Your task to perform on an android device: Search for hotels in Buenos aires Image 0: 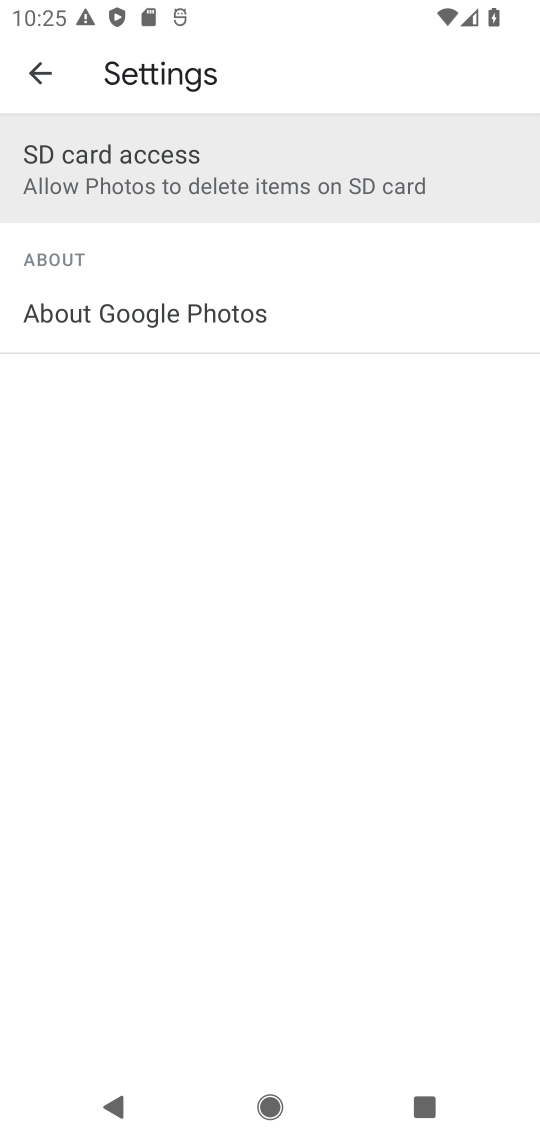
Step 0: press home button
Your task to perform on an android device: Search for hotels in Buenos aires Image 1: 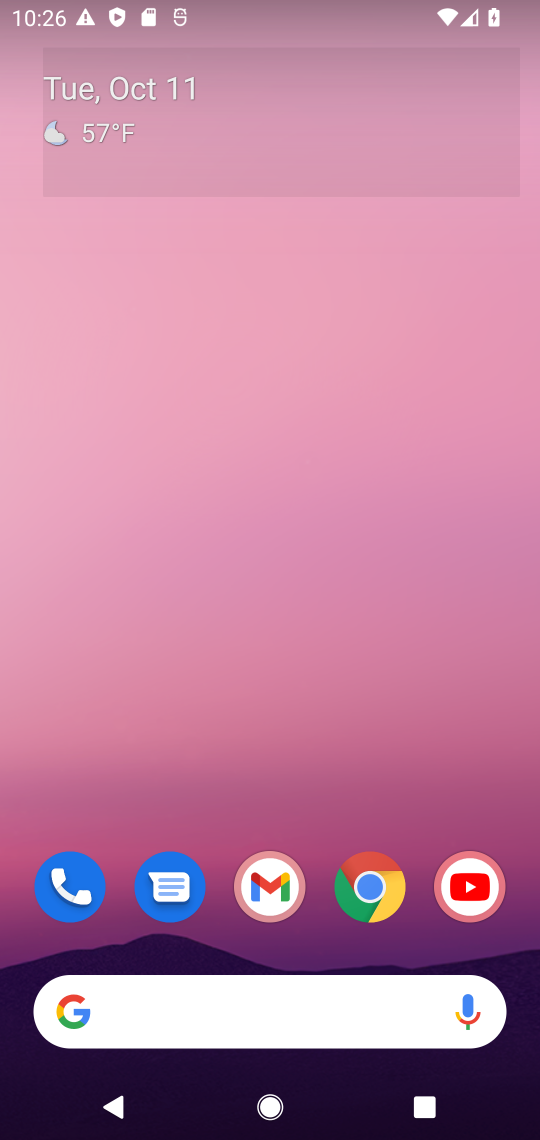
Step 1: click (168, 1010)
Your task to perform on an android device: Search for hotels in Buenos aires Image 2: 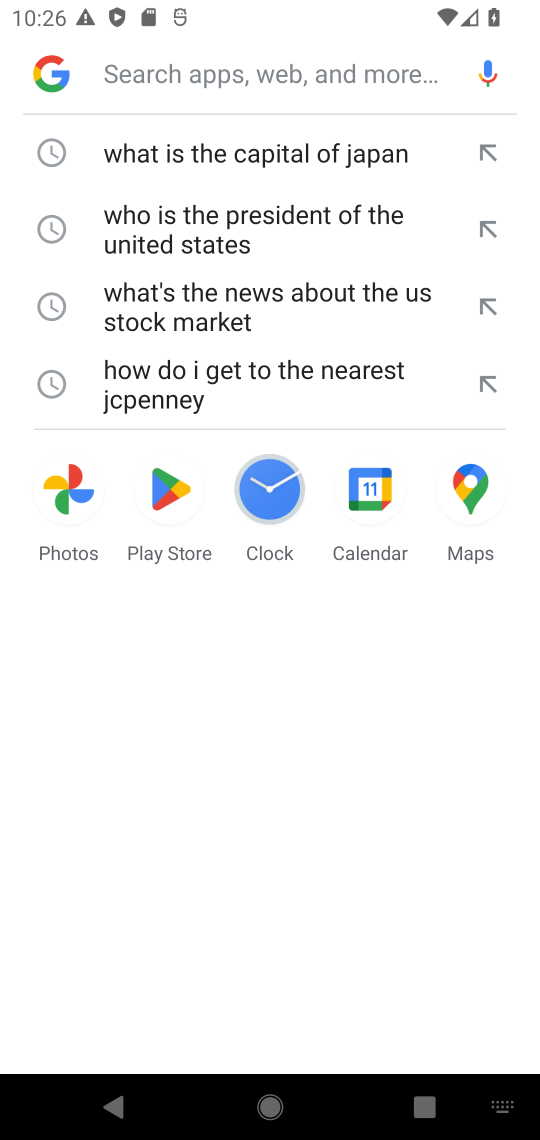
Step 2: type "hotels in Buenos aires"
Your task to perform on an android device: Search for hotels in Buenos aires Image 3: 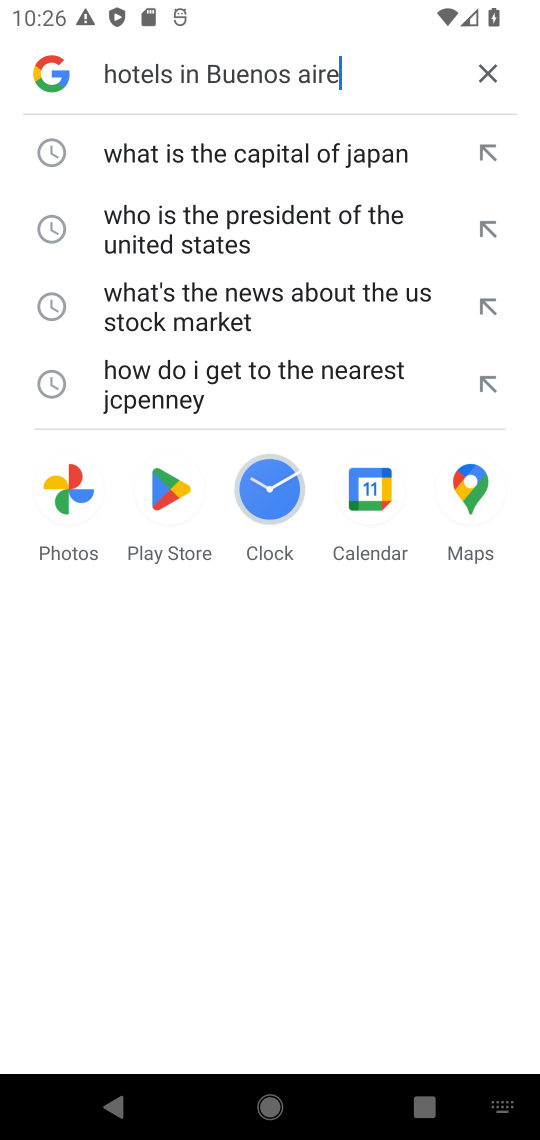
Step 3: press enter
Your task to perform on an android device: Search for hotels in Buenos aires Image 4: 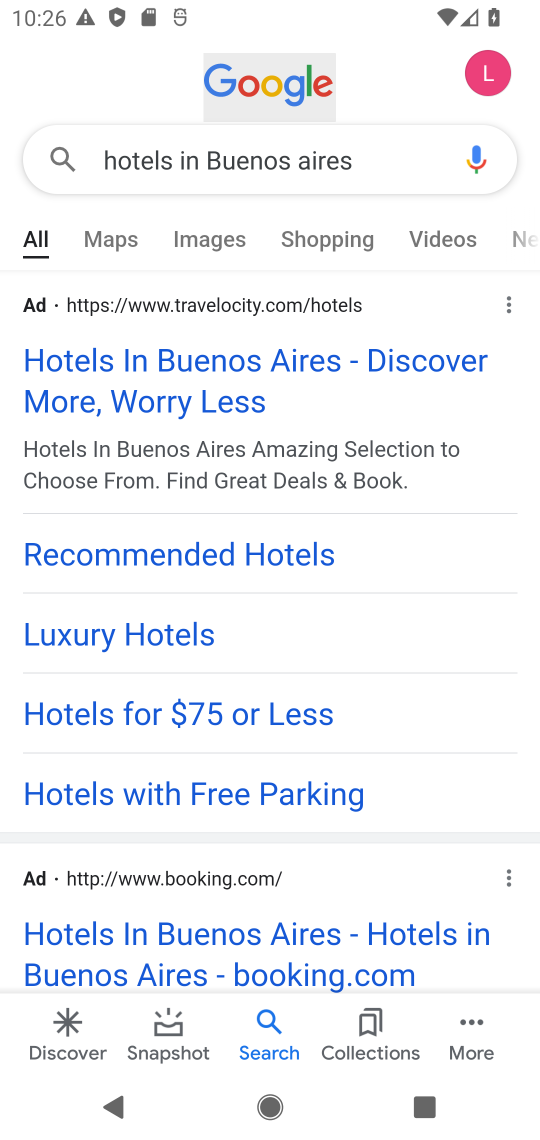
Step 4: click (286, 366)
Your task to perform on an android device: Search for hotels in Buenos aires Image 5: 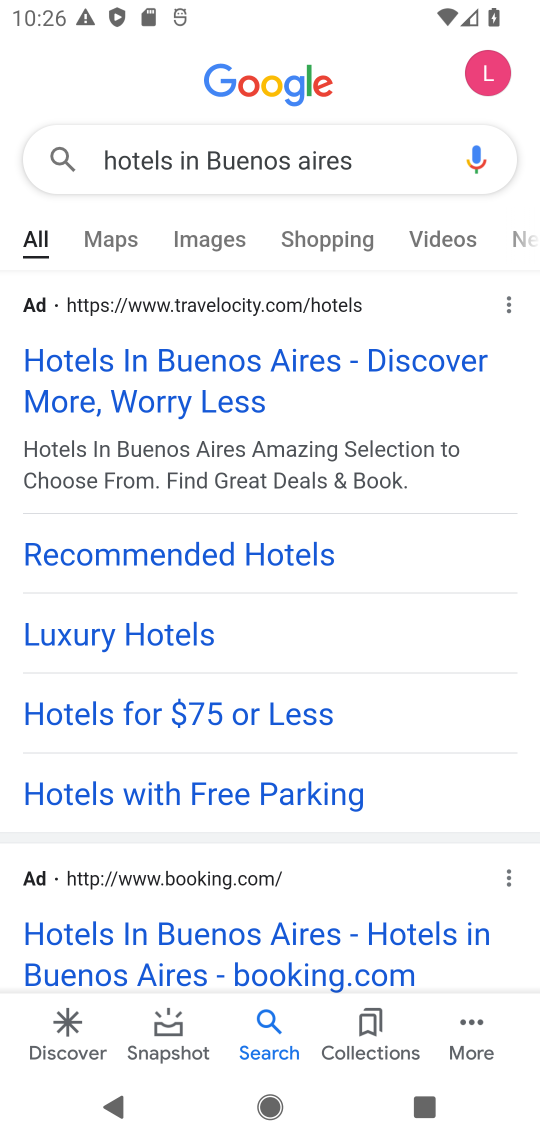
Step 5: click (152, 374)
Your task to perform on an android device: Search for hotels in Buenos aires Image 6: 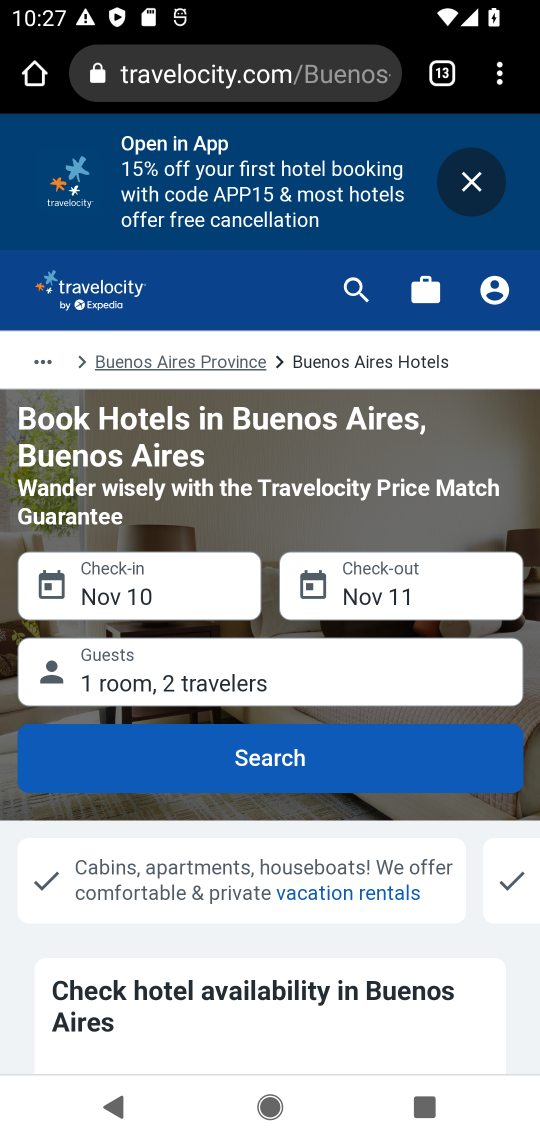
Step 6: task complete